Your task to perform on an android device: add a label to a message in the gmail app Image 0: 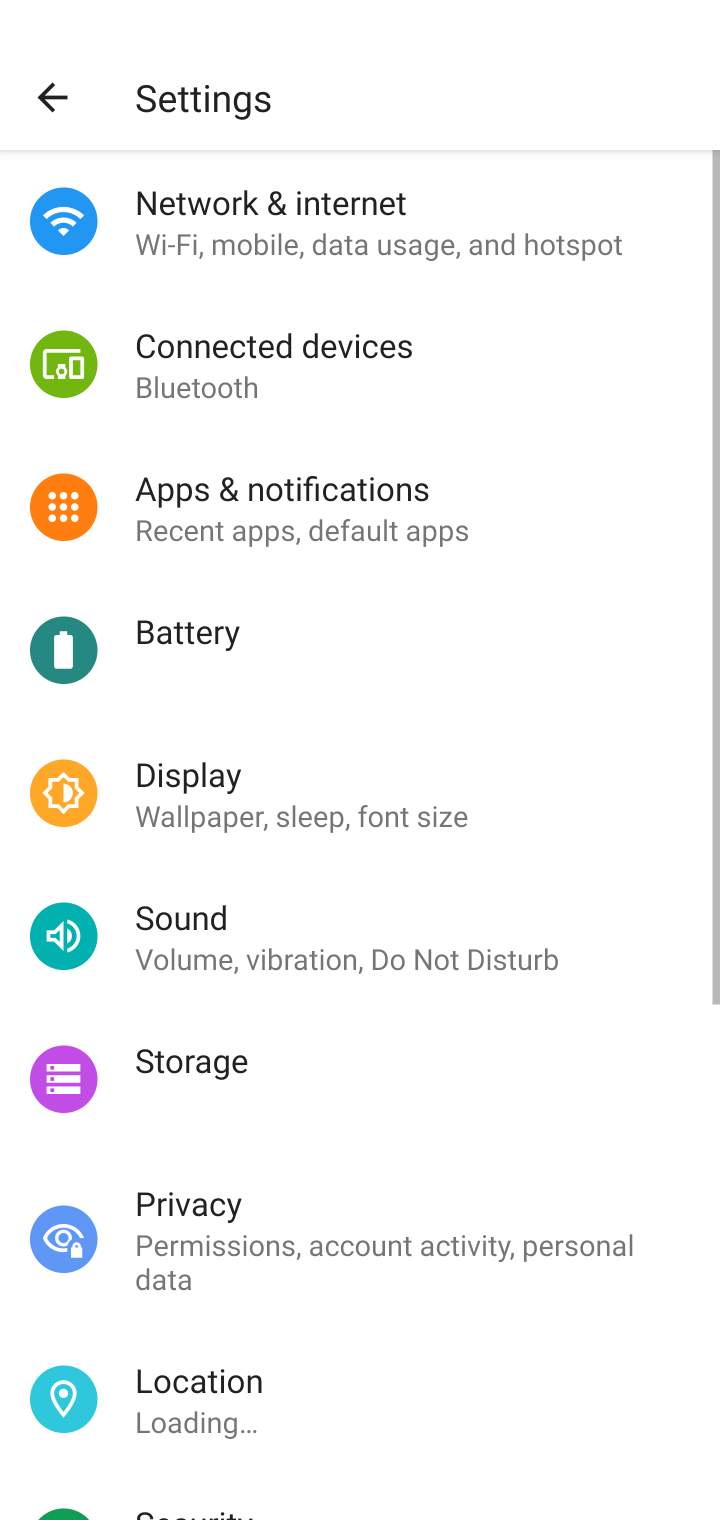
Step 0: press home button
Your task to perform on an android device: add a label to a message in the gmail app Image 1: 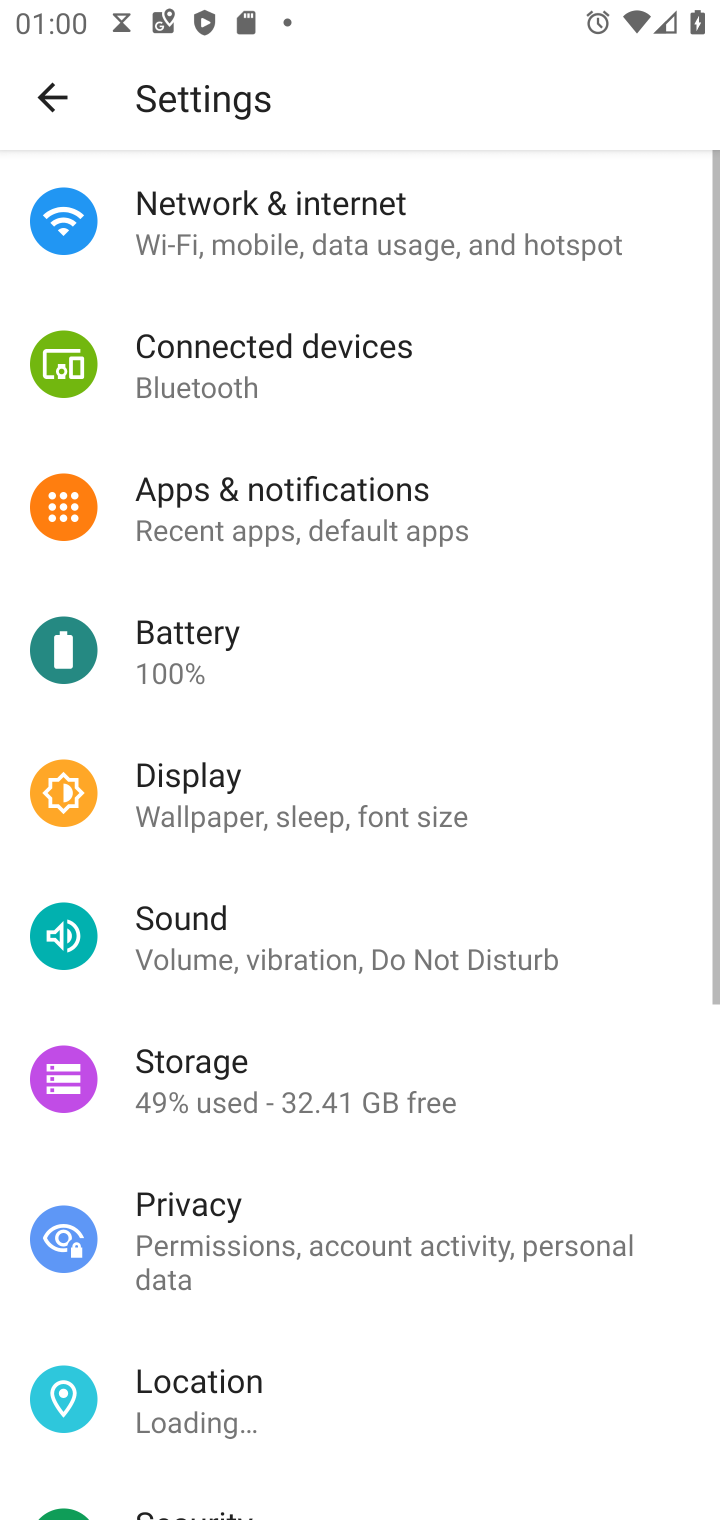
Step 1: drag from (336, 1263) to (489, 220)
Your task to perform on an android device: add a label to a message in the gmail app Image 2: 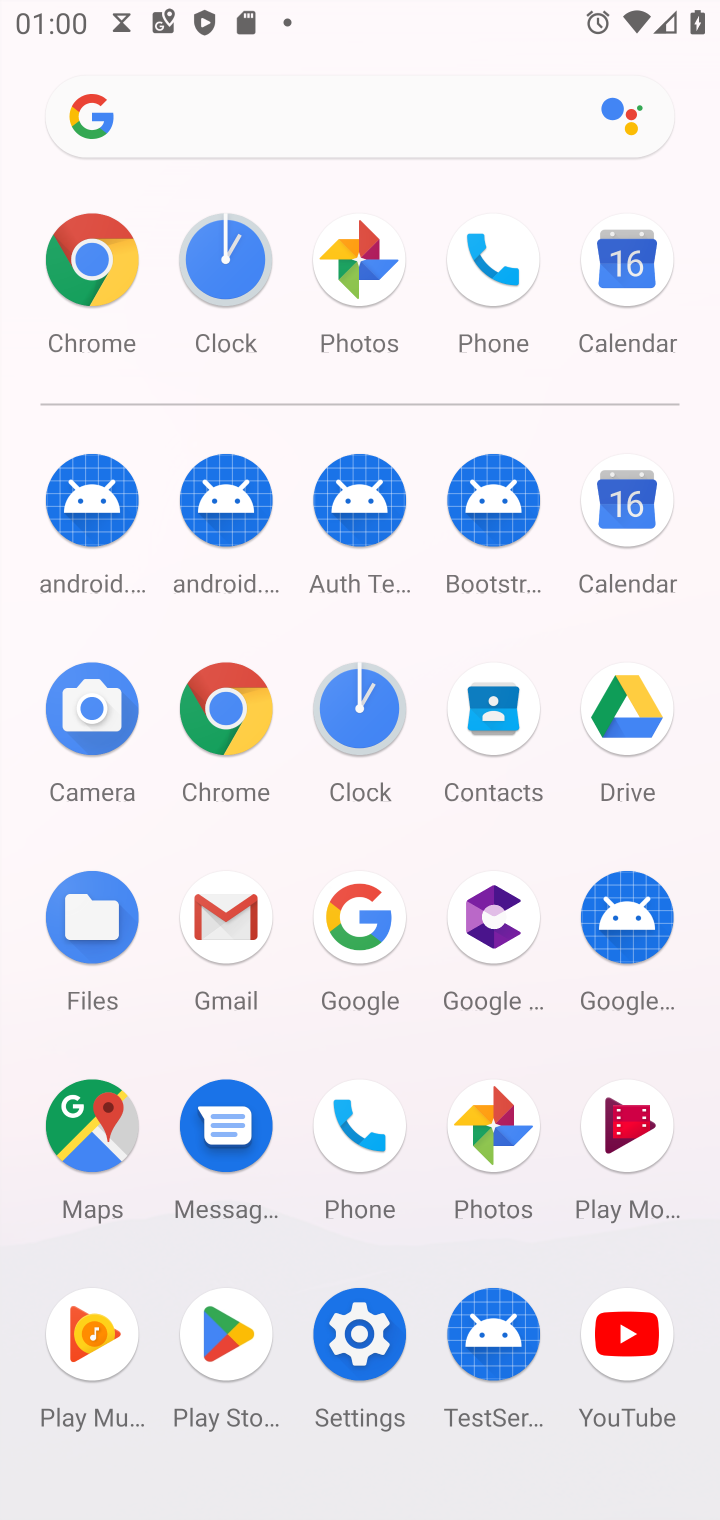
Step 2: click (228, 903)
Your task to perform on an android device: add a label to a message in the gmail app Image 3: 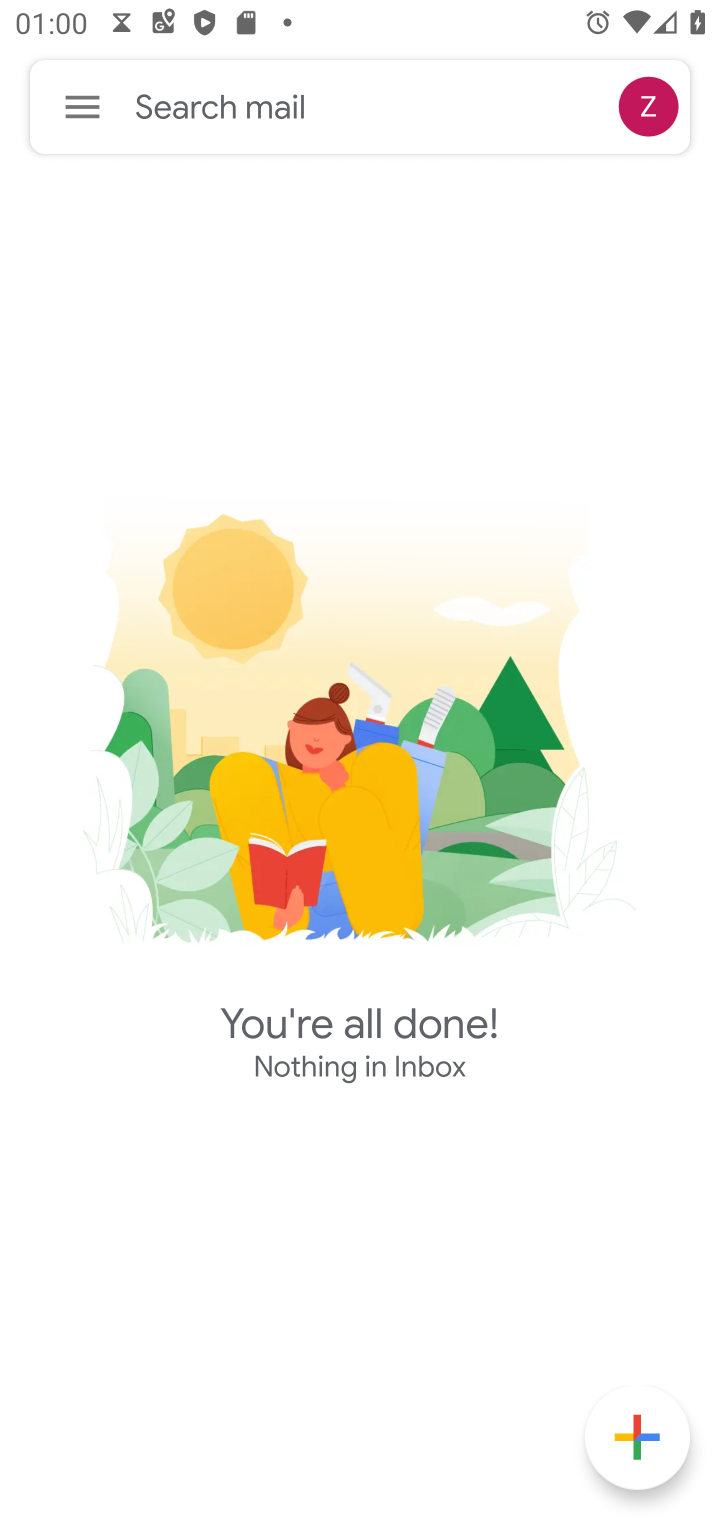
Step 3: click (79, 99)
Your task to perform on an android device: add a label to a message in the gmail app Image 4: 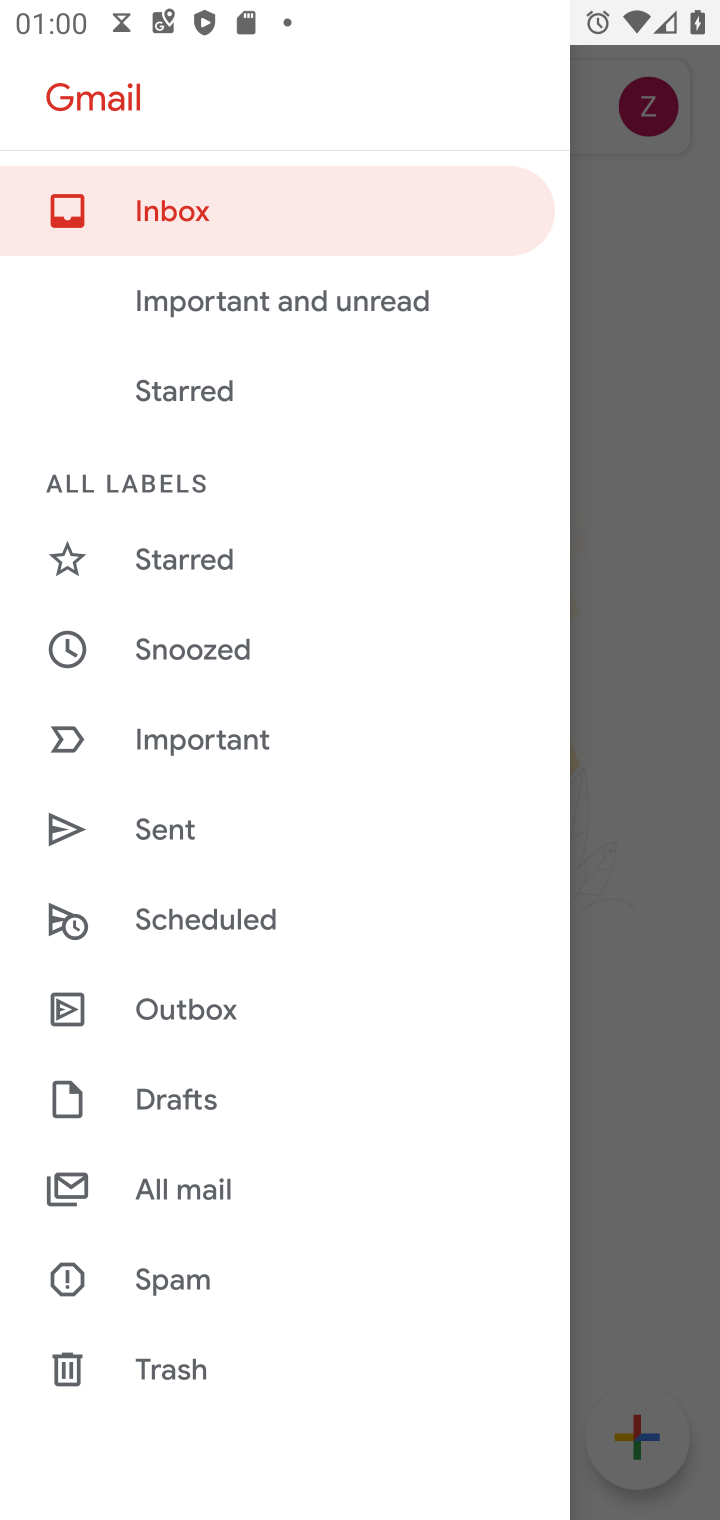
Step 4: click (209, 1195)
Your task to perform on an android device: add a label to a message in the gmail app Image 5: 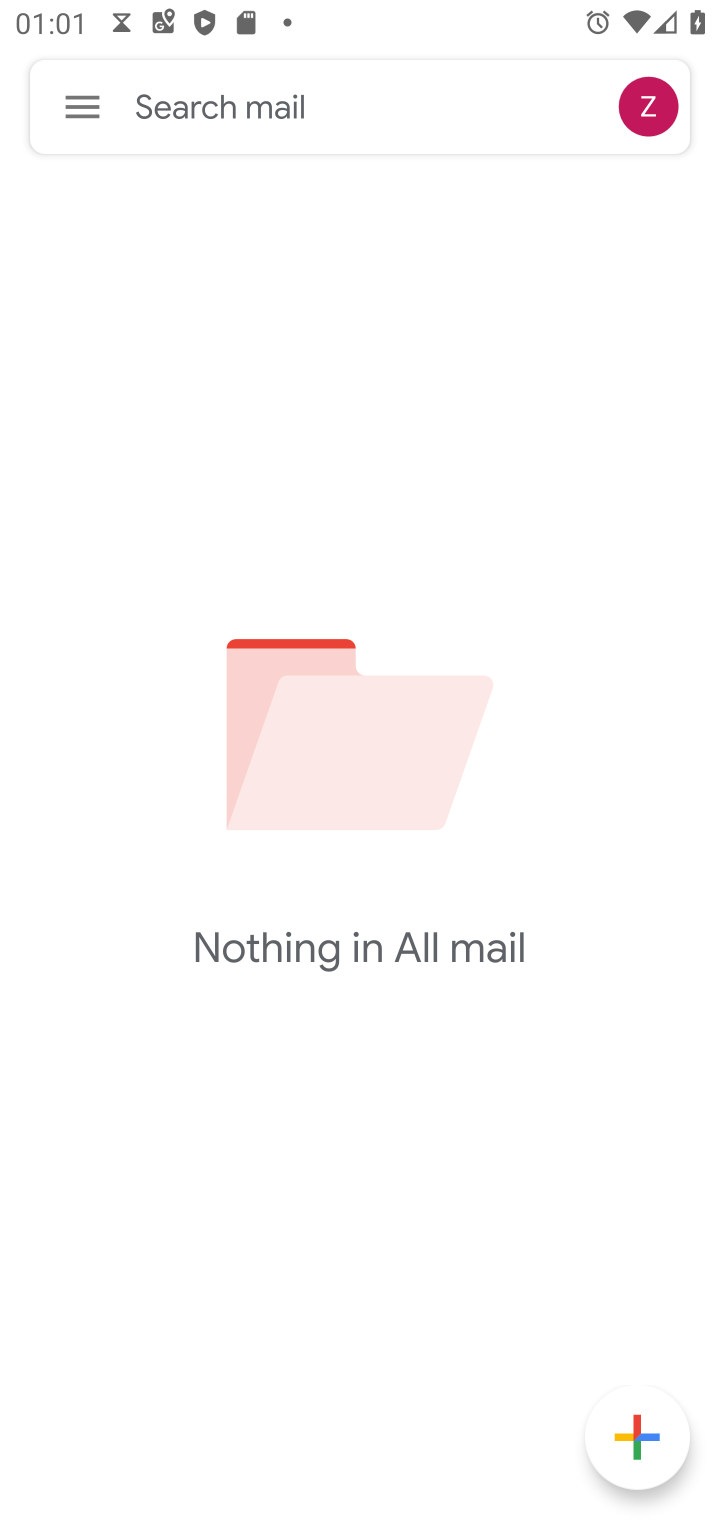
Step 5: task complete